Your task to perform on an android device: toggle improve location accuracy Image 0: 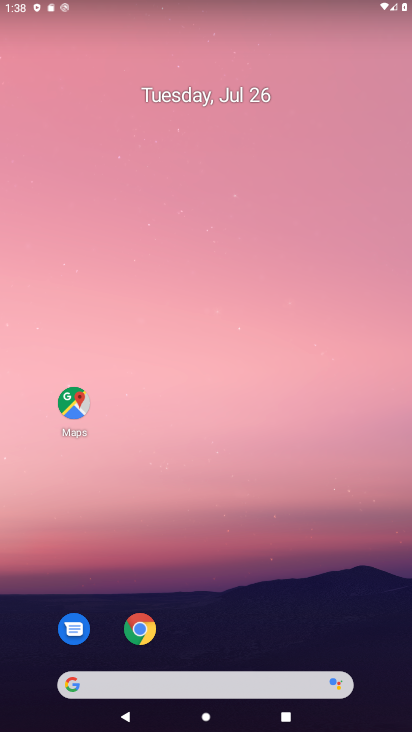
Step 0: drag from (382, 676) to (346, 162)
Your task to perform on an android device: toggle improve location accuracy Image 1: 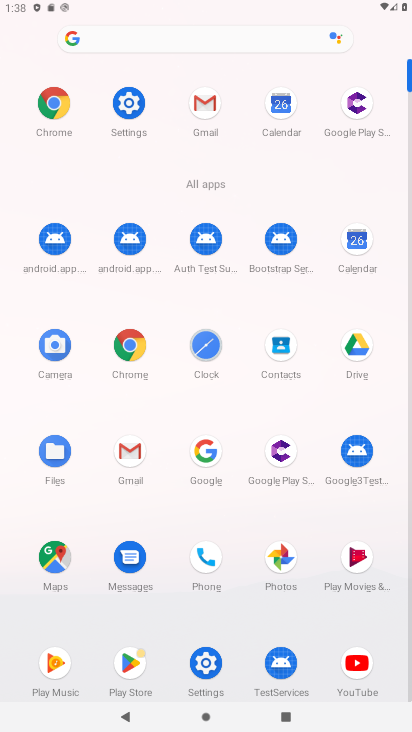
Step 1: click (205, 664)
Your task to perform on an android device: toggle improve location accuracy Image 2: 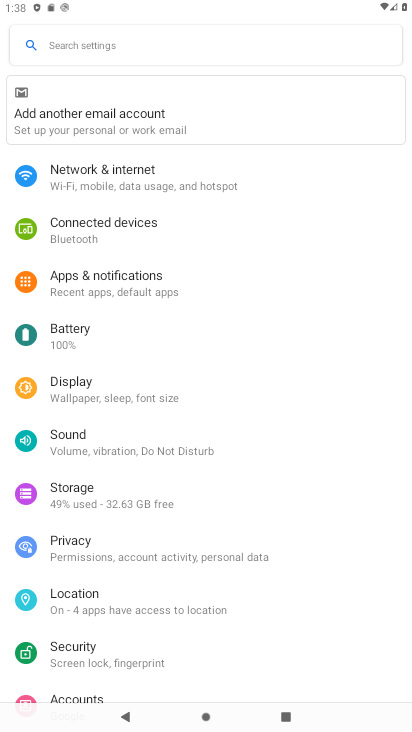
Step 2: click (70, 600)
Your task to perform on an android device: toggle improve location accuracy Image 3: 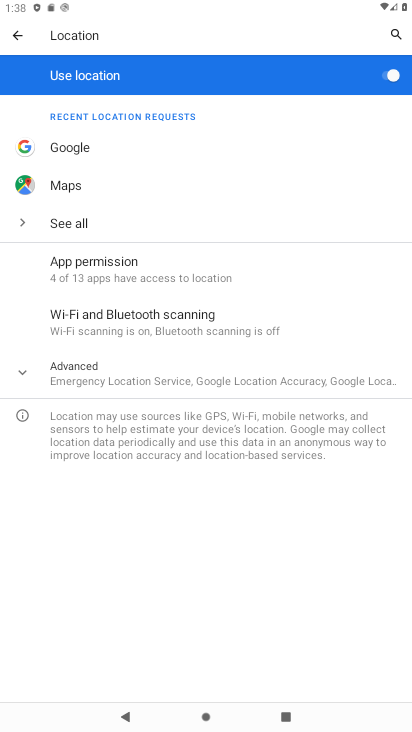
Step 3: click (22, 375)
Your task to perform on an android device: toggle improve location accuracy Image 4: 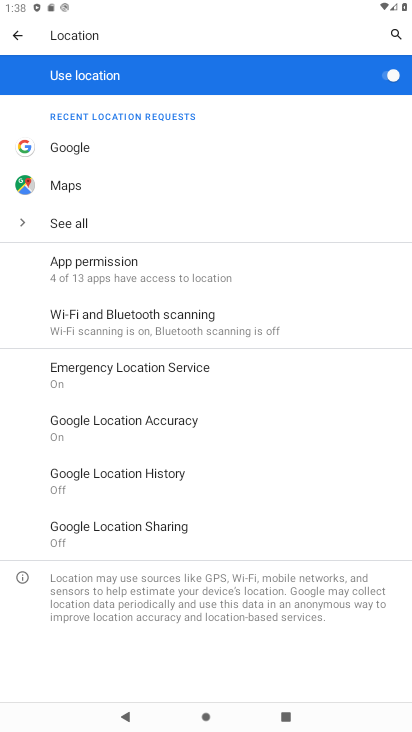
Step 4: click (87, 415)
Your task to perform on an android device: toggle improve location accuracy Image 5: 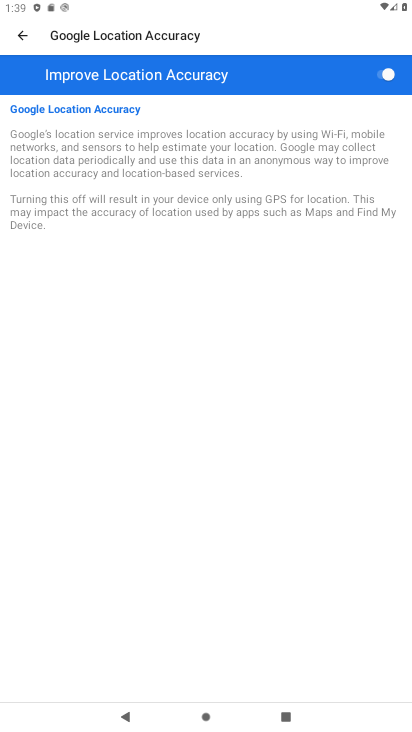
Step 5: click (381, 82)
Your task to perform on an android device: toggle improve location accuracy Image 6: 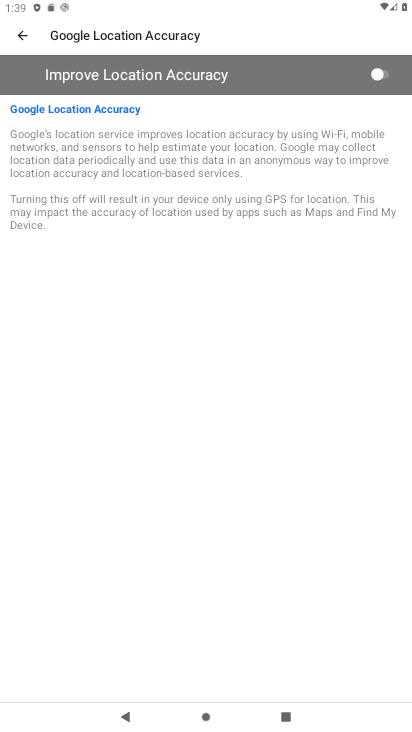
Step 6: task complete